Your task to perform on an android device: open the mobile data screen to see how much data has been used Image 0: 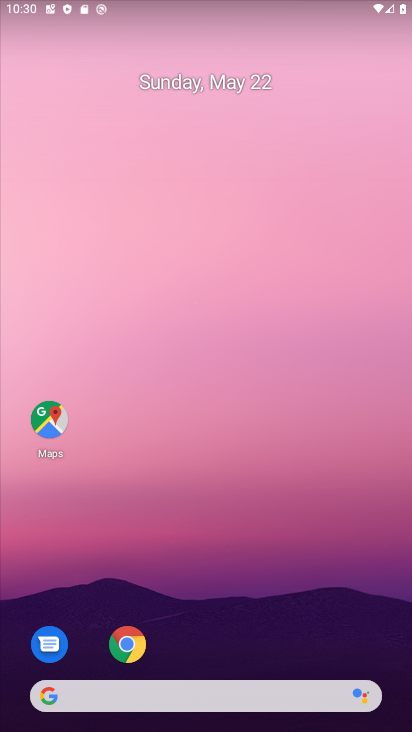
Step 0: drag from (185, 664) to (247, 232)
Your task to perform on an android device: open the mobile data screen to see how much data has been used Image 1: 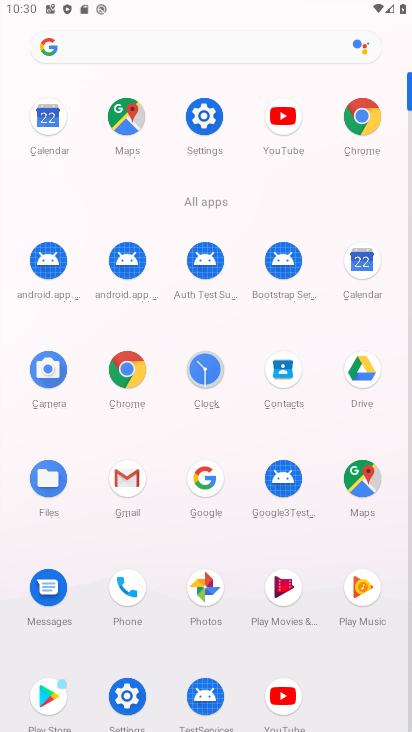
Step 1: click (211, 106)
Your task to perform on an android device: open the mobile data screen to see how much data has been used Image 2: 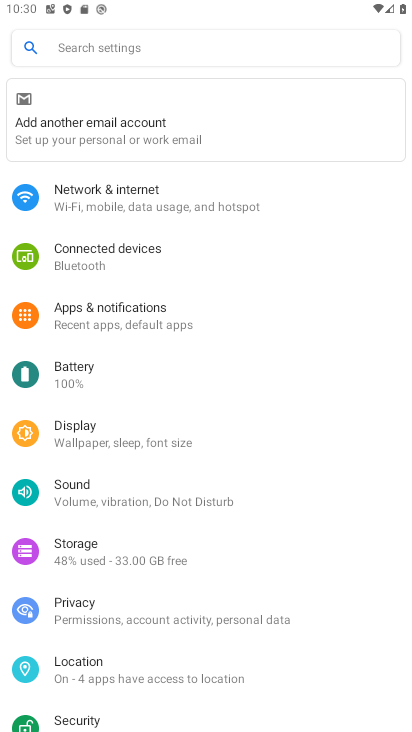
Step 2: click (129, 206)
Your task to perform on an android device: open the mobile data screen to see how much data has been used Image 3: 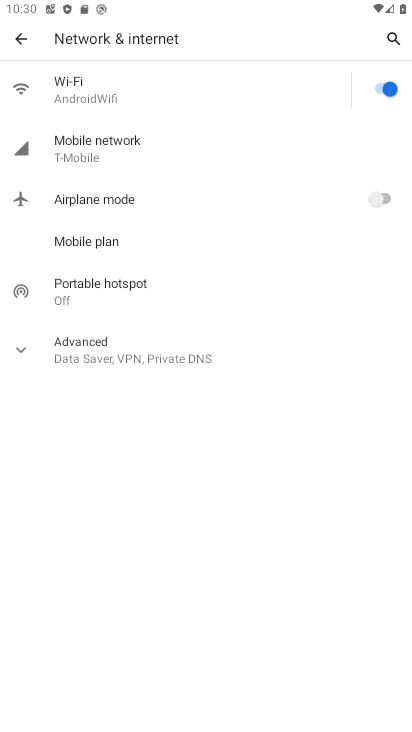
Step 3: click (88, 144)
Your task to perform on an android device: open the mobile data screen to see how much data has been used Image 4: 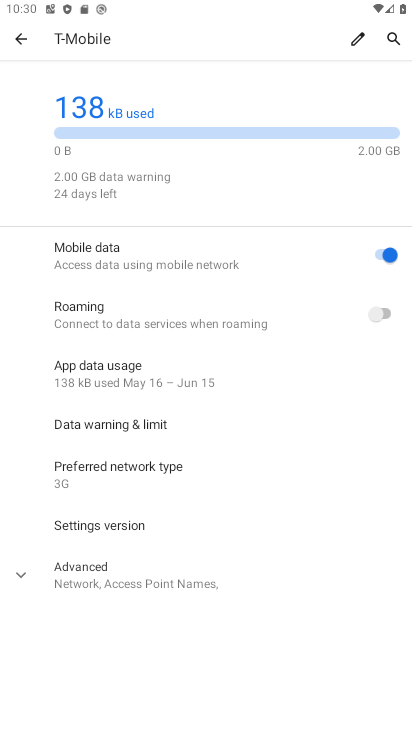
Step 4: task complete